Your task to perform on an android device: refresh tabs in the chrome app Image 0: 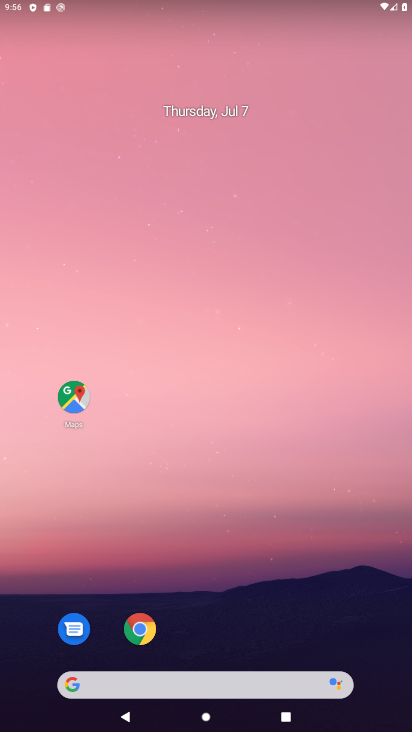
Step 0: press home button
Your task to perform on an android device: refresh tabs in the chrome app Image 1: 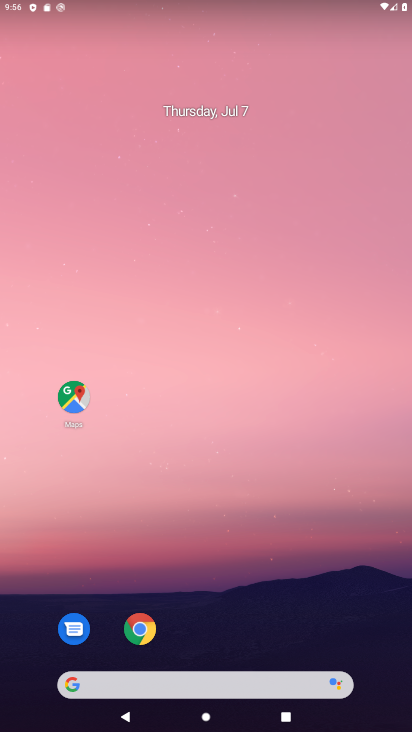
Step 1: drag from (333, 642) to (349, 184)
Your task to perform on an android device: refresh tabs in the chrome app Image 2: 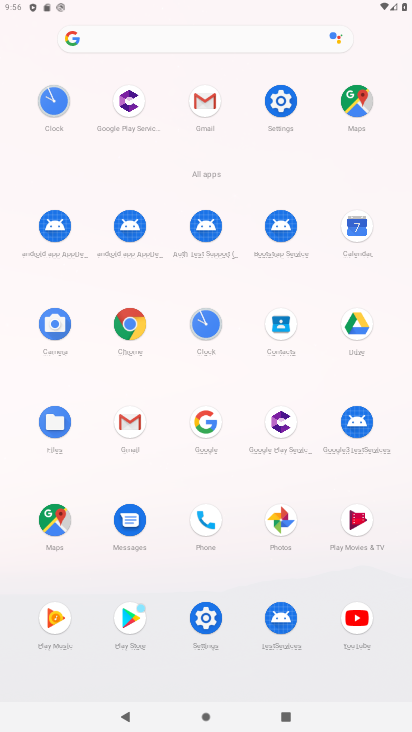
Step 2: click (135, 327)
Your task to perform on an android device: refresh tabs in the chrome app Image 3: 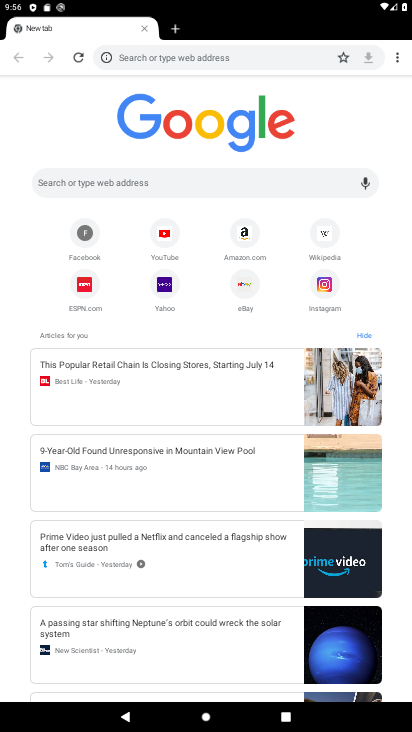
Step 3: click (79, 58)
Your task to perform on an android device: refresh tabs in the chrome app Image 4: 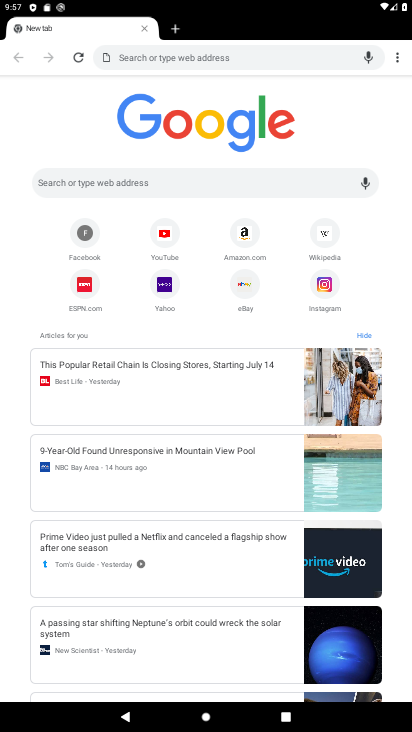
Step 4: click (79, 58)
Your task to perform on an android device: refresh tabs in the chrome app Image 5: 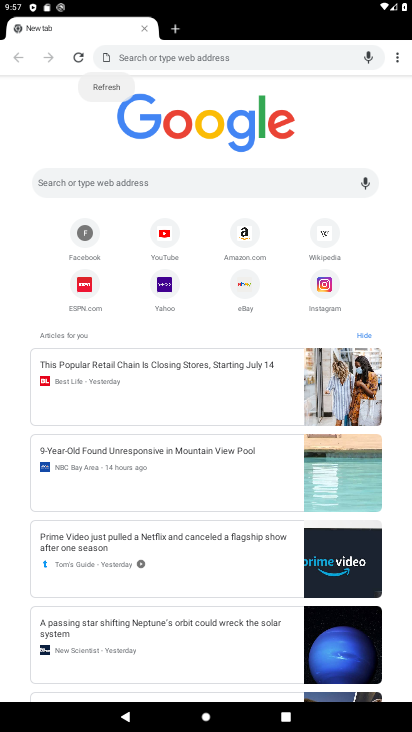
Step 5: click (79, 58)
Your task to perform on an android device: refresh tabs in the chrome app Image 6: 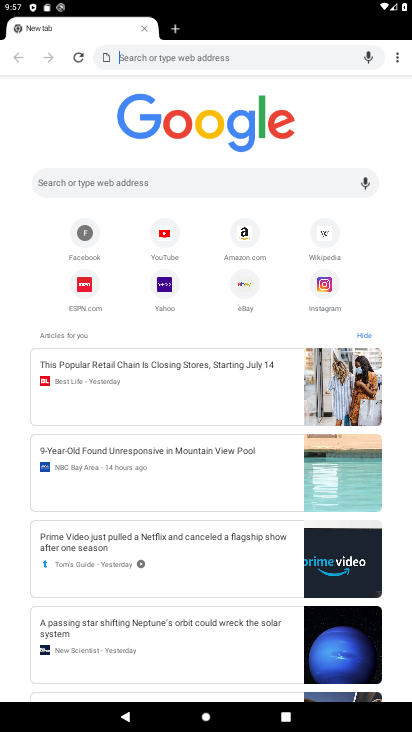
Step 6: task complete